Your task to perform on an android device: Go to accessibility settings Image 0: 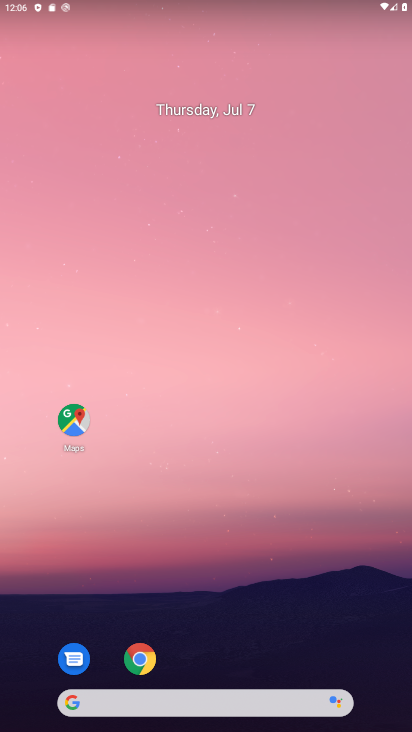
Step 0: drag from (202, 669) to (249, 10)
Your task to perform on an android device: Go to accessibility settings Image 1: 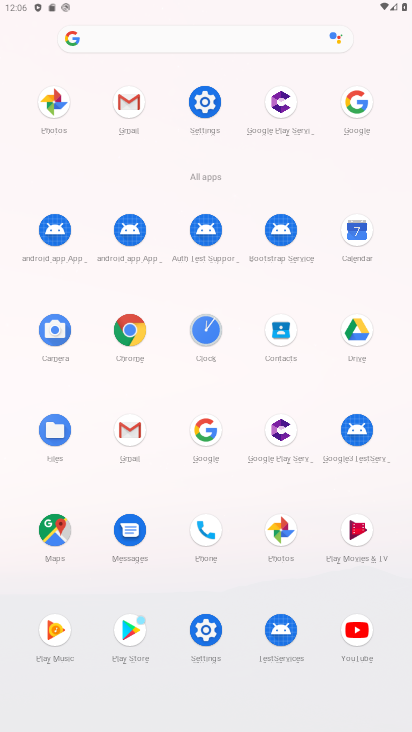
Step 1: click (204, 109)
Your task to perform on an android device: Go to accessibility settings Image 2: 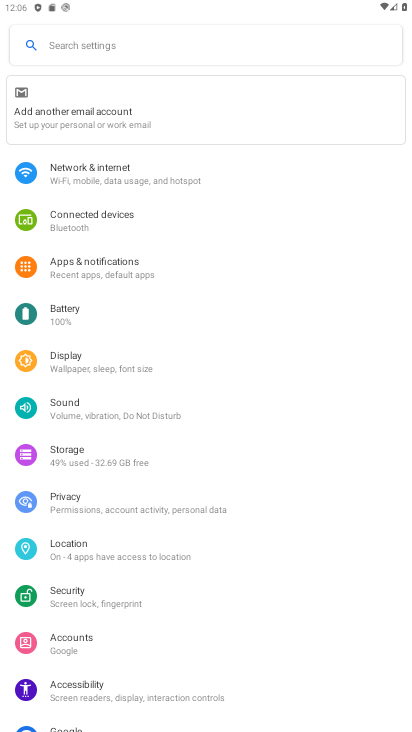
Step 2: click (91, 687)
Your task to perform on an android device: Go to accessibility settings Image 3: 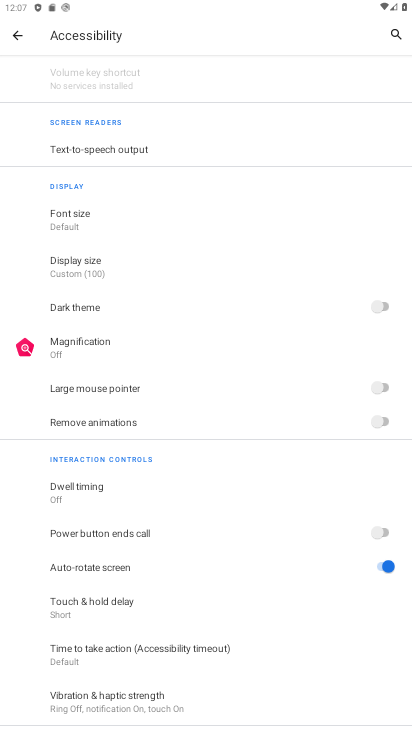
Step 3: task complete